Your task to perform on an android device: turn notification dots on Image 0: 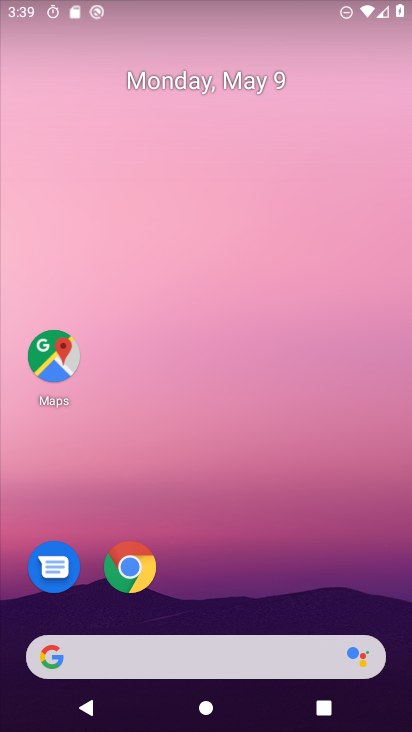
Step 0: drag from (243, 607) to (250, 92)
Your task to perform on an android device: turn notification dots on Image 1: 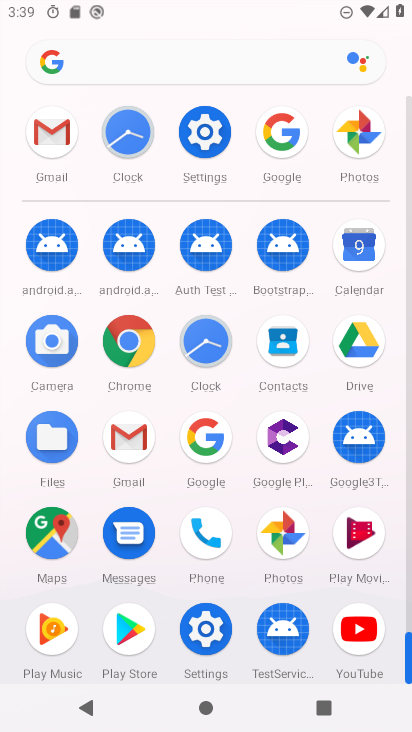
Step 1: click (207, 131)
Your task to perform on an android device: turn notification dots on Image 2: 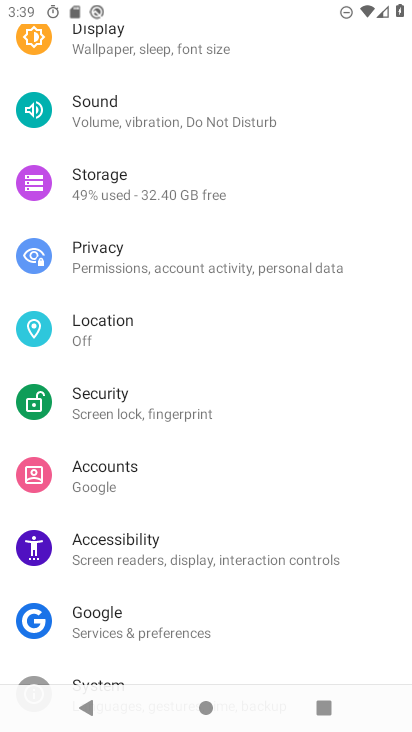
Step 2: drag from (250, 152) to (280, 463)
Your task to perform on an android device: turn notification dots on Image 3: 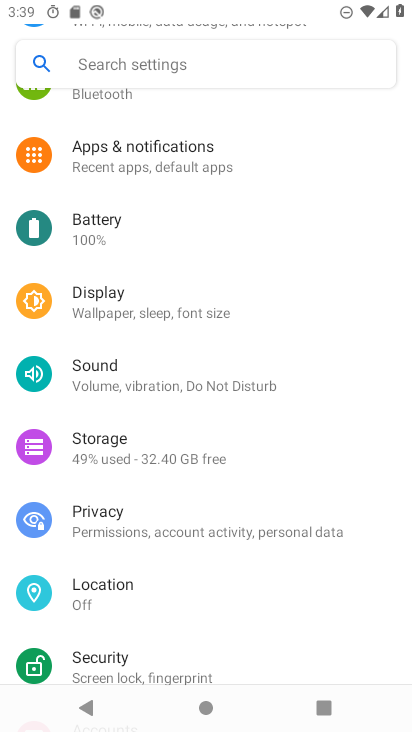
Step 3: click (176, 159)
Your task to perform on an android device: turn notification dots on Image 4: 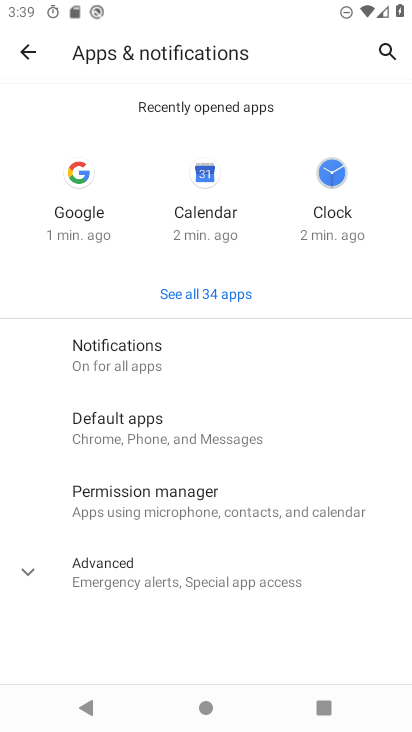
Step 4: click (168, 361)
Your task to perform on an android device: turn notification dots on Image 5: 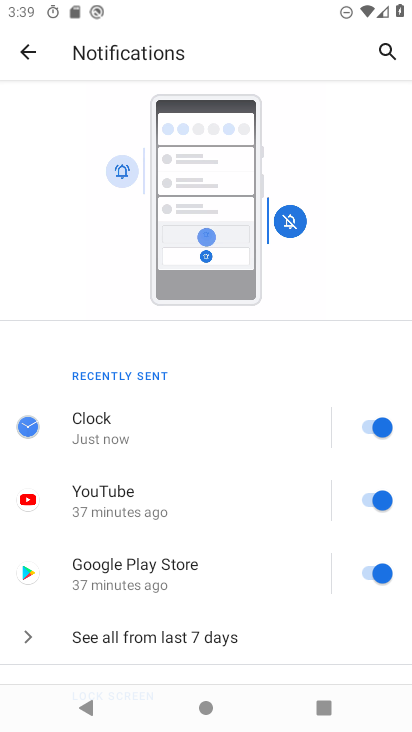
Step 5: drag from (208, 615) to (213, 138)
Your task to perform on an android device: turn notification dots on Image 6: 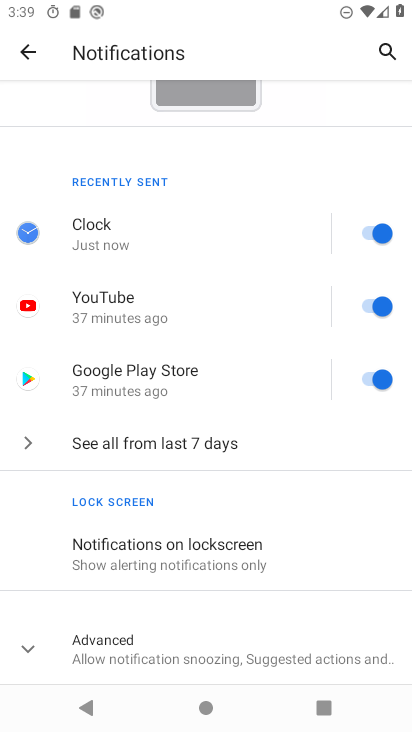
Step 6: click (192, 657)
Your task to perform on an android device: turn notification dots on Image 7: 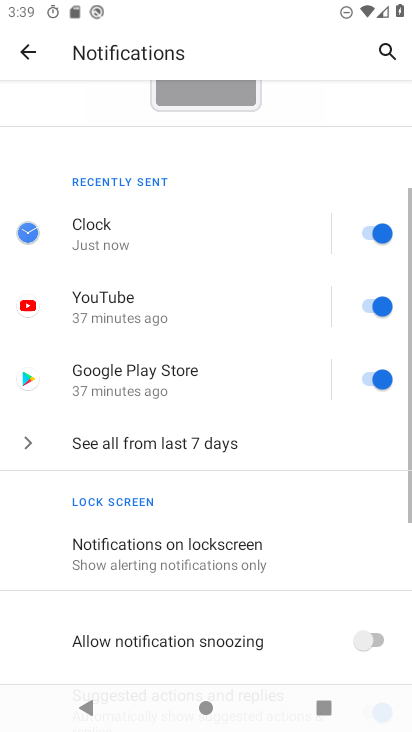
Step 7: task complete